Your task to perform on an android device: Go to eBay Image 0: 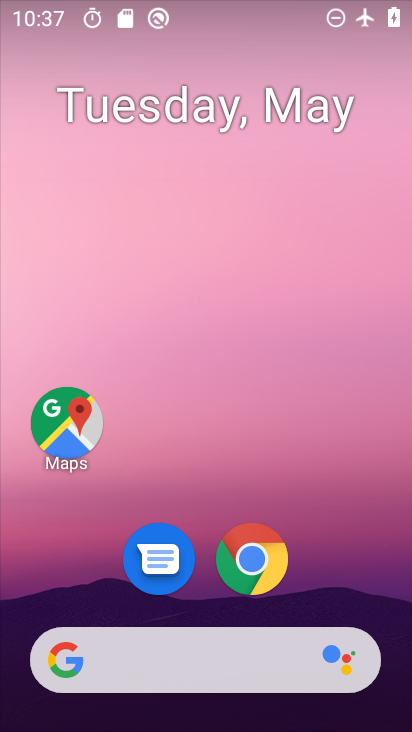
Step 0: drag from (383, 648) to (250, 25)
Your task to perform on an android device: Go to eBay Image 1: 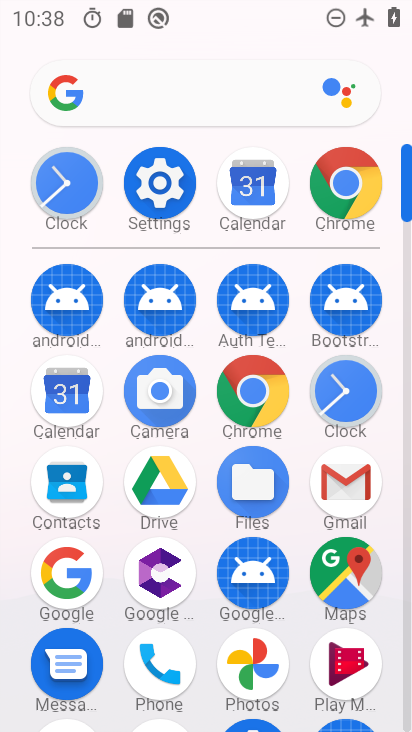
Step 1: click (68, 591)
Your task to perform on an android device: Go to eBay Image 2: 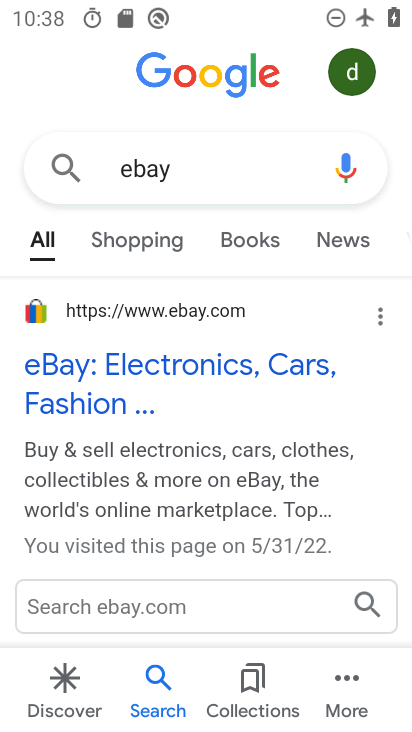
Step 2: task complete